Your task to perform on an android device: Search for vegetarian restaurants on Maps Image 0: 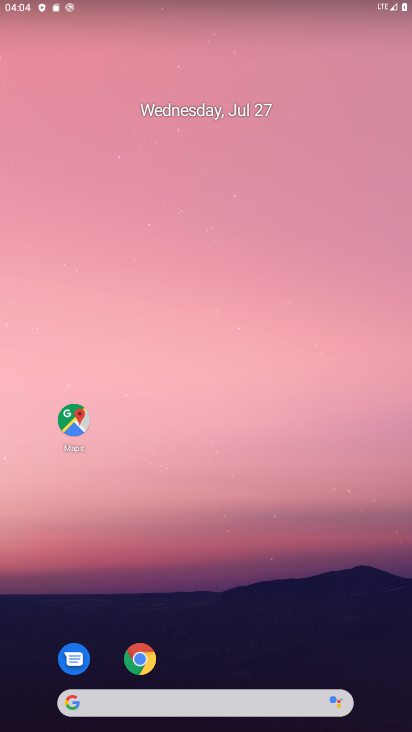
Step 0: click (71, 420)
Your task to perform on an android device: Search for vegetarian restaurants on Maps Image 1: 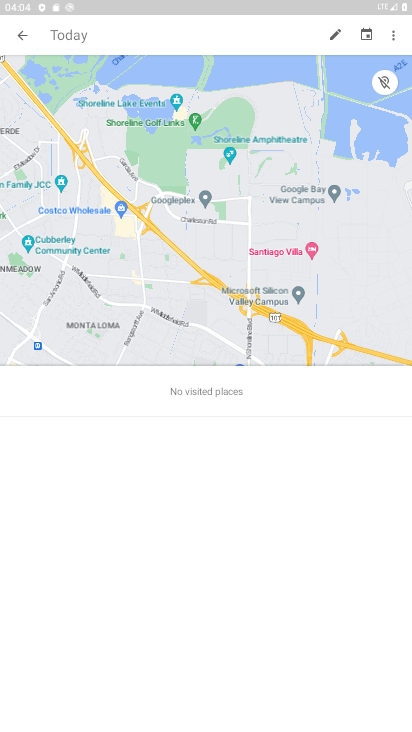
Step 1: click (19, 36)
Your task to perform on an android device: Search for vegetarian restaurants on Maps Image 2: 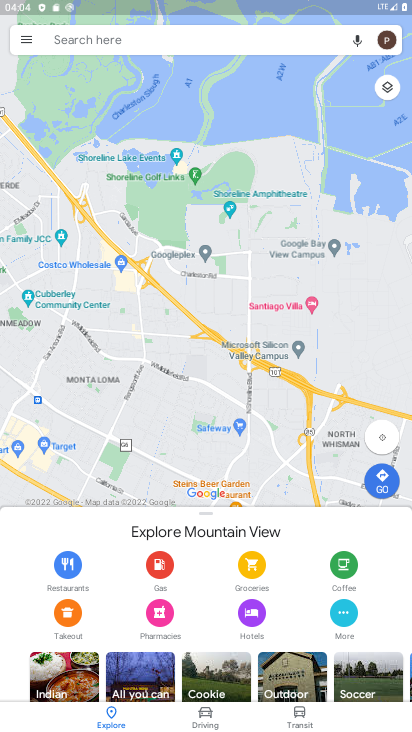
Step 2: click (88, 40)
Your task to perform on an android device: Search for vegetarian restaurants on Maps Image 3: 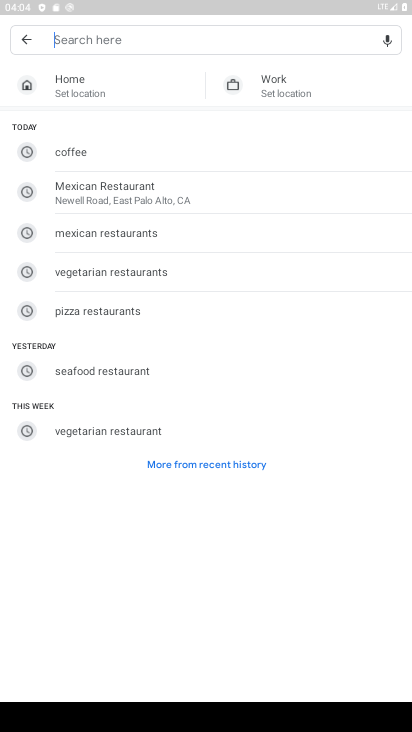
Step 3: type "vegetarian restaurants"
Your task to perform on an android device: Search for vegetarian restaurants on Maps Image 4: 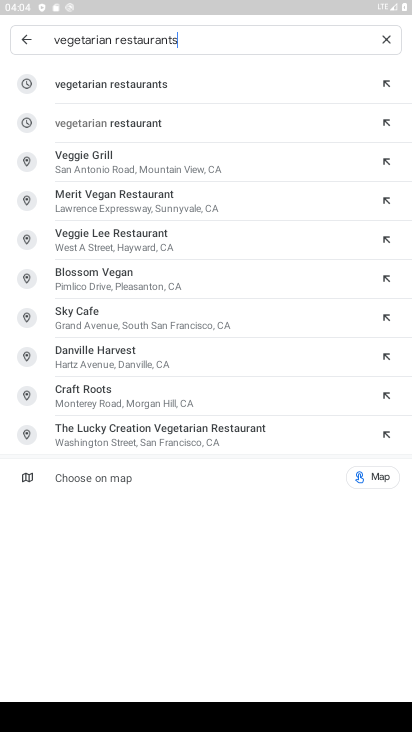
Step 4: click (142, 88)
Your task to perform on an android device: Search for vegetarian restaurants on Maps Image 5: 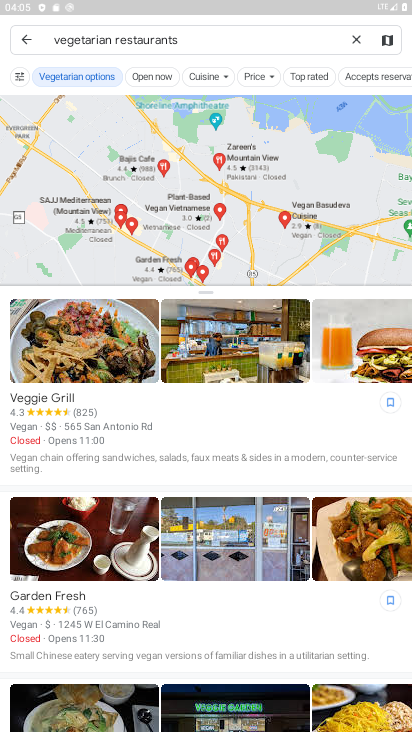
Step 5: task complete